Your task to perform on an android device: Show me popular videos on Youtube Image 0: 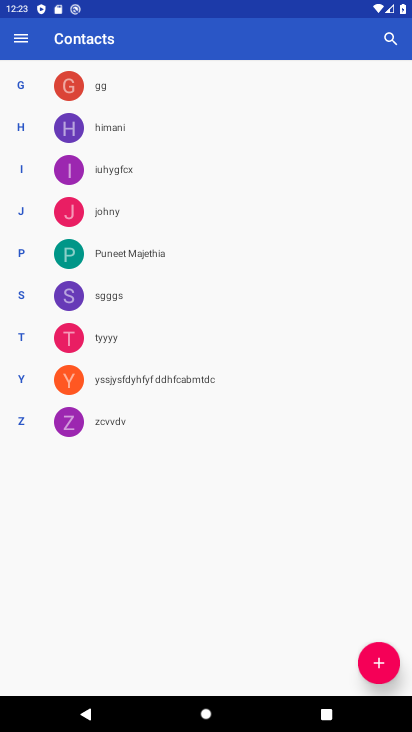
Step 0: press home button
Your task to perform on an android device: Show me popular videos on Youtube Image 1: 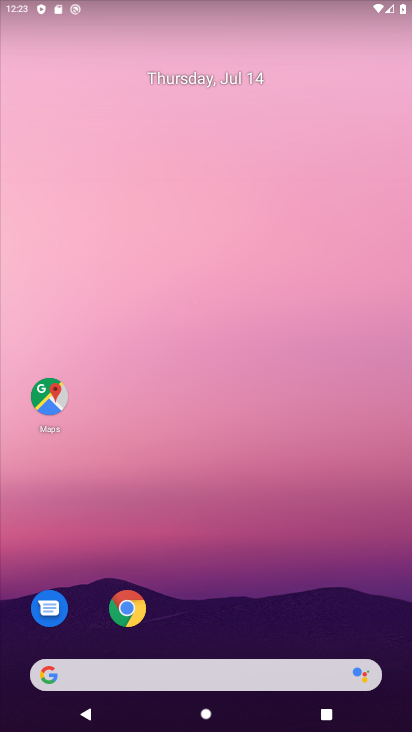
Step 1: drag from (368, 627) to (382, 165)
Your task to perform on an android device: Show me popular videos on Youtube Image 2: 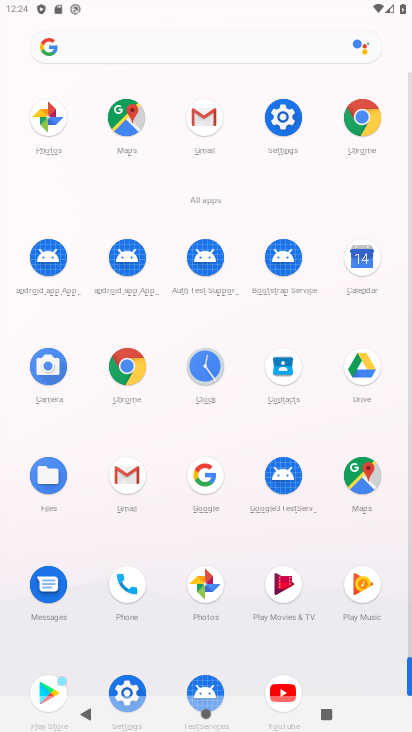
Step 2: drag from (349, 658) to (352, 455)
Your task to perform on an android device: Show me popular videos on Youtube Image 3: 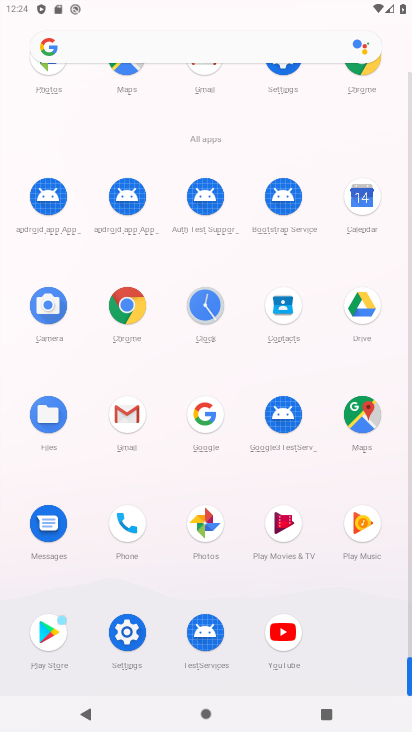
Step 3: click (279, 636)
Your task to perform on an android device: Show me popular videos on Youtube Image 4: 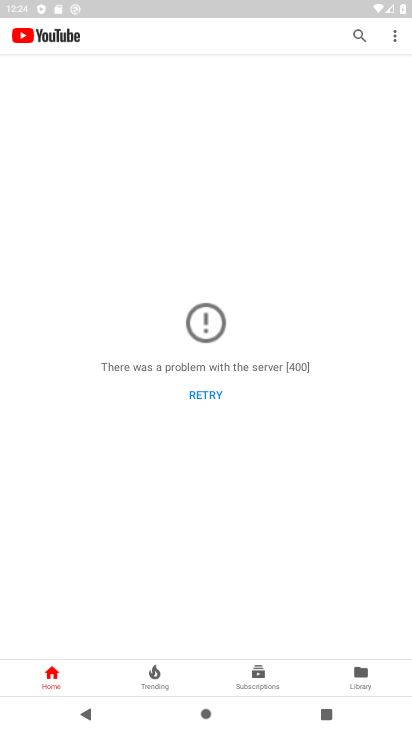
Step 4: task complete